Your task to perform on an android device: Do I have any events today? Image 0: 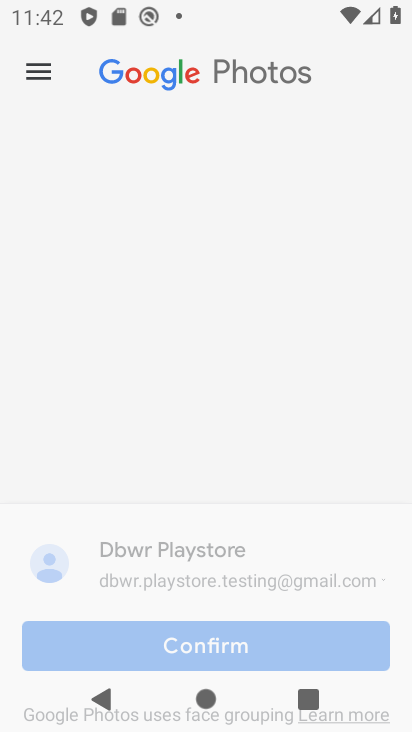
Step 0: press home button
Your task to perform on an android device: Do I have any events today? Image 1: 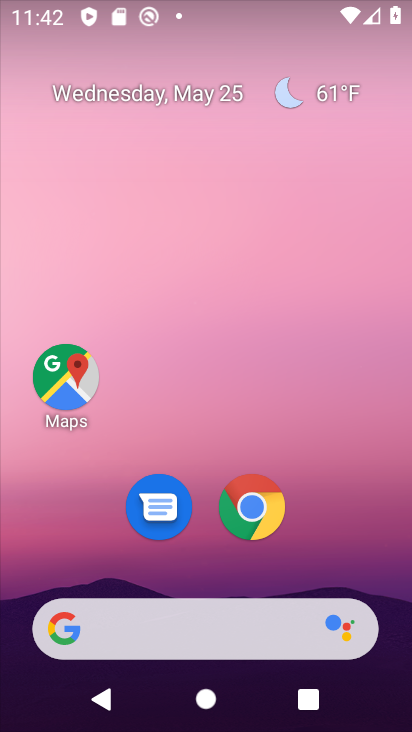
Step 1: drag from (333, 572) to (330, 164)
Your task to perform on an android device: Do I have any events today? Image 2: 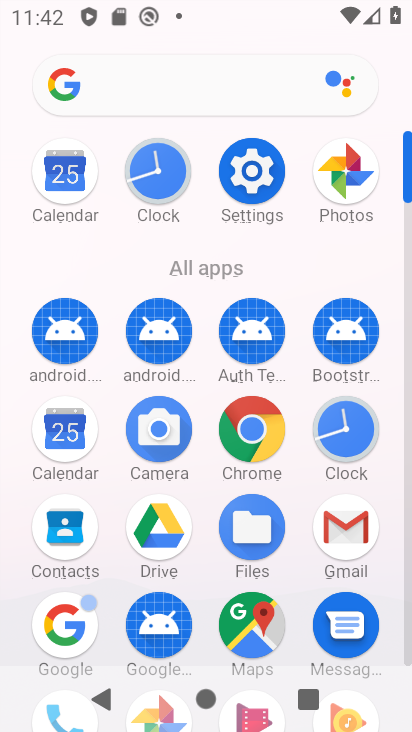
Step 2: click (79, 456)
Your task to perform on an android device: Do I have any events today? Image 3: 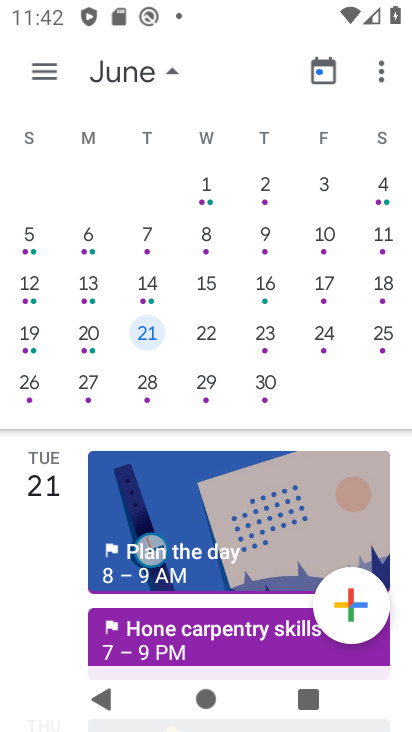
Step 3: task complete